Your task to perform on an android device: Go to Google maps Image 0: 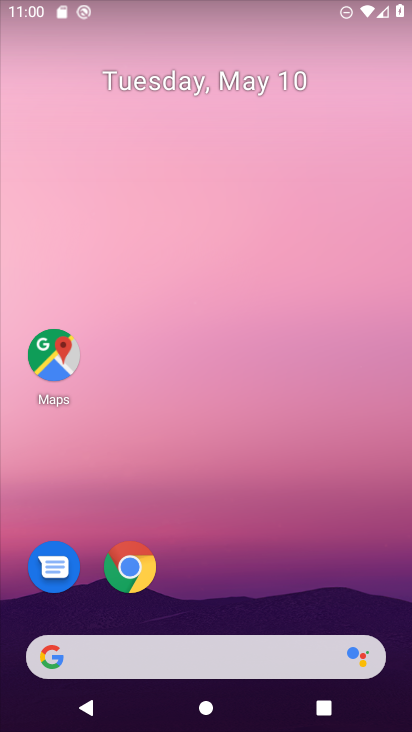
Step 0: drag from (264, 543) to (276, 124)
Your task to perform on an android device: Go to Google maps Image 1: 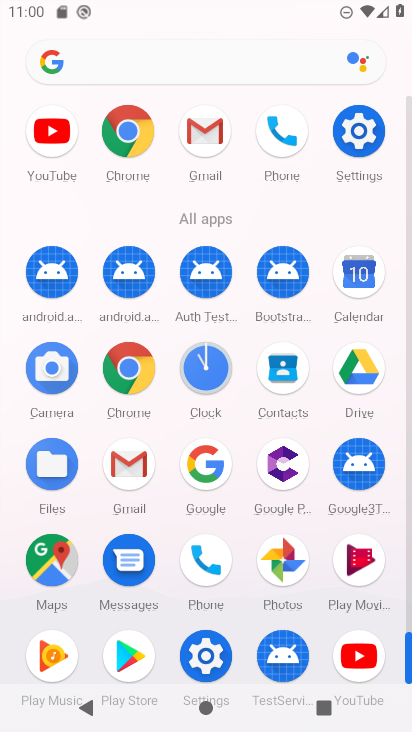
Step 1: click (59, 560)
Your task to perform on an android device: Go to Google maps Image 2: 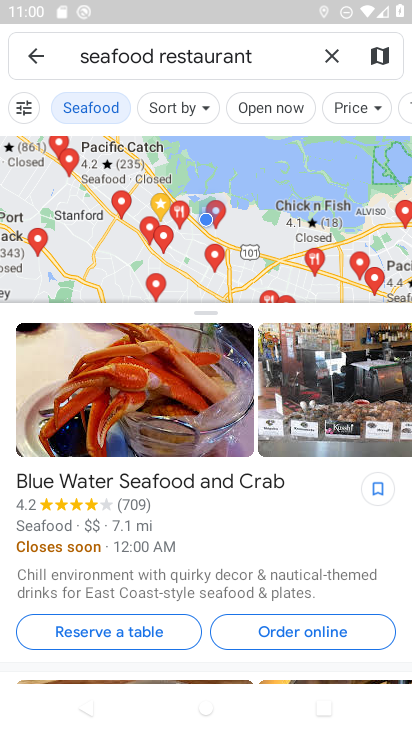
Step 2: click (333, 59)
Your task to perform on an android device: Go to Google maps Image 3: 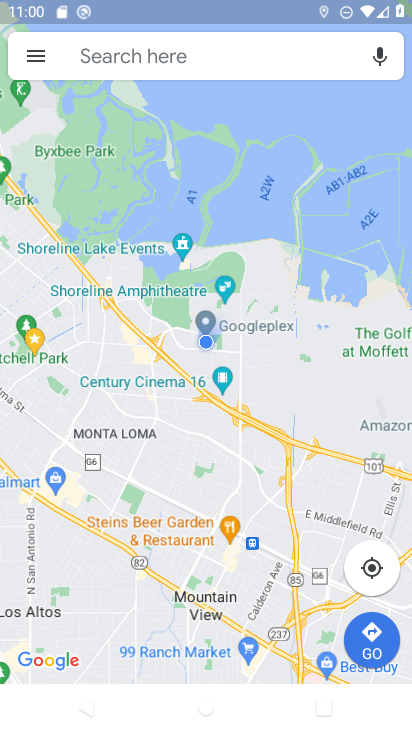
Step 3: task complete